Your task to perform on an android device: Go to CNN.com Image 0: 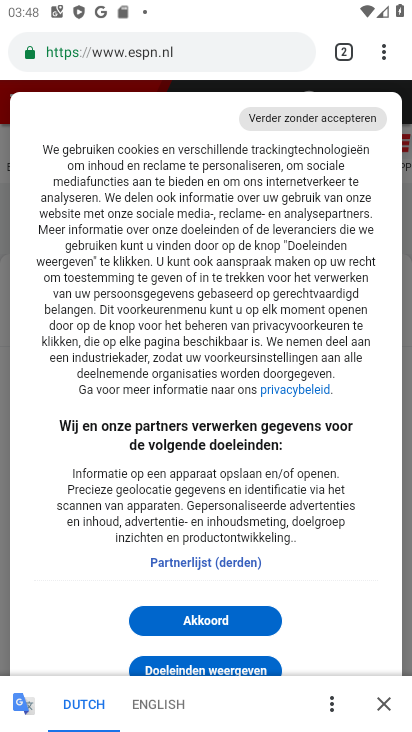
Step 0: press home button
Your task to perform on an android device: Go to CNN.com Image 1: 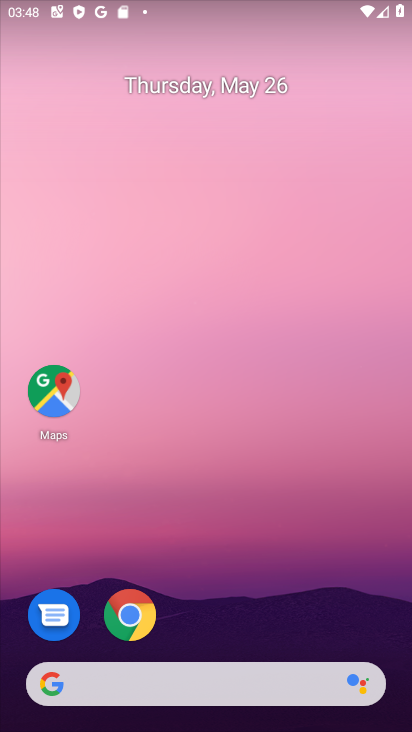
Step 1: click (118, 612)
Your task to perform on an android device: Go to CNN.com Image 2: 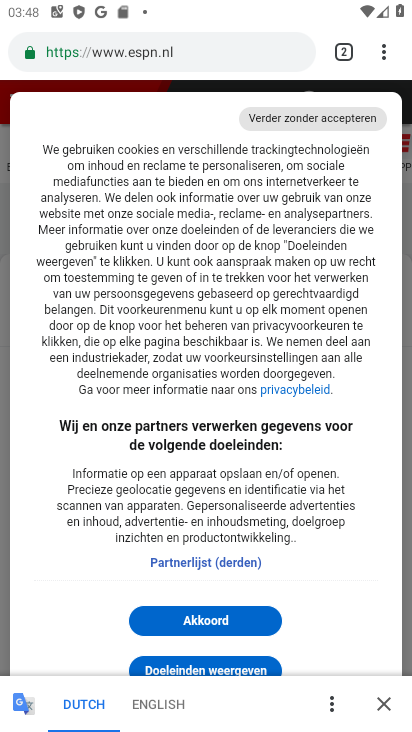
Step 2: click (145, 45)
Your task to perform on an android device: Go to CNN.com Image 3: 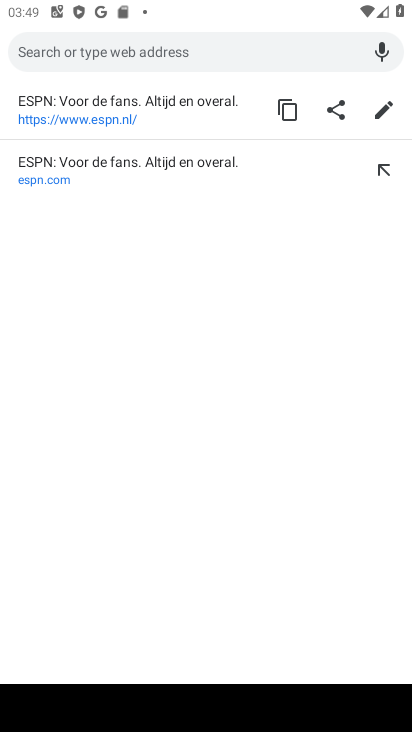
Step 3: type "www.cnn.com"
Your task to perform on an android device: Go to CNN.com Image 4: 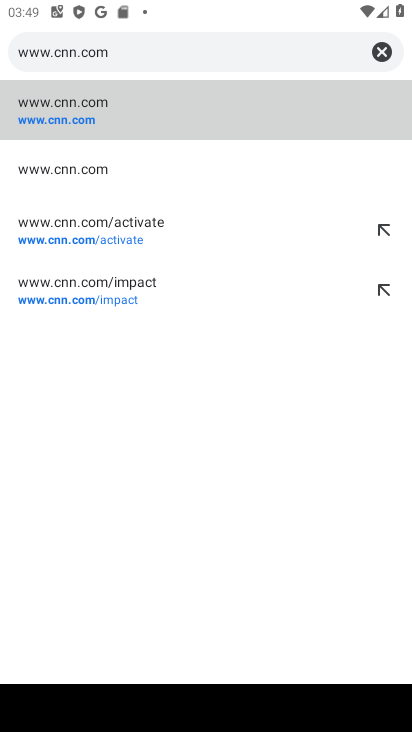
Step 4: click (57, 123)
Your task to perform on an android device: Go to CNN.com Image 5: 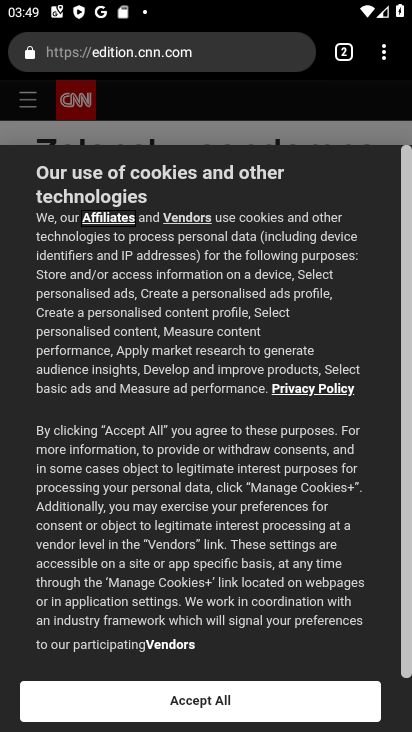
Step 5: task complete